Your task to perform on an android device: set the timer Image 0: 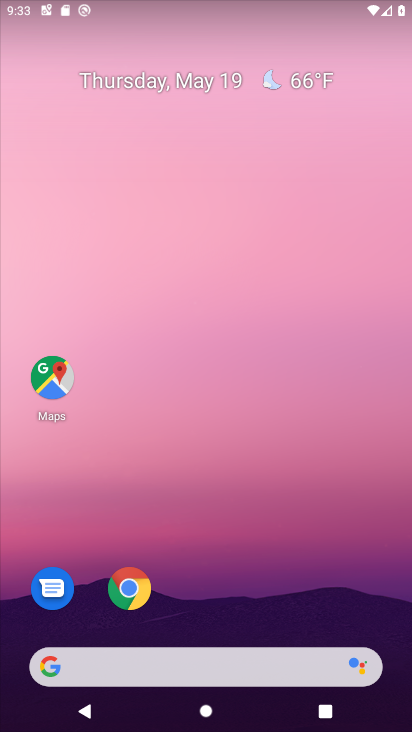
Step 0: drag from (371, 548) to (365, 167)
Your task to perform on an android device: set the timer Image 1: 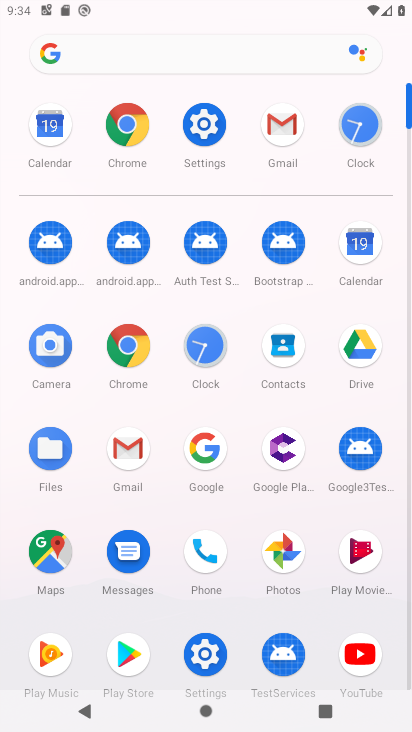
Step 1: click (188, 345)
Your task to perform on an android device: set the timer Image 2: 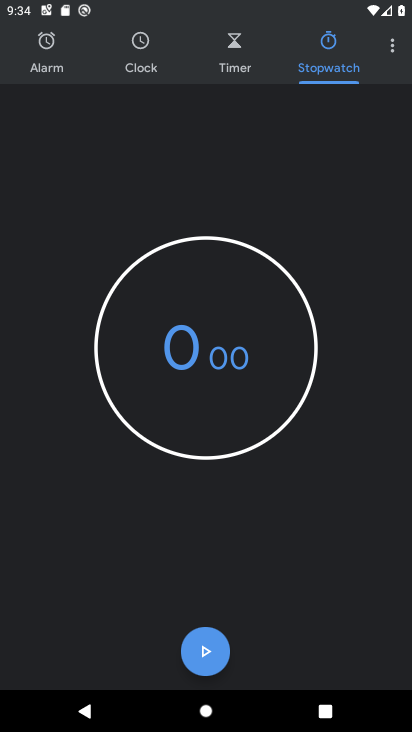
Step 2: click (49, 51)
Your task to perform on an android device: set the timer Image 3: 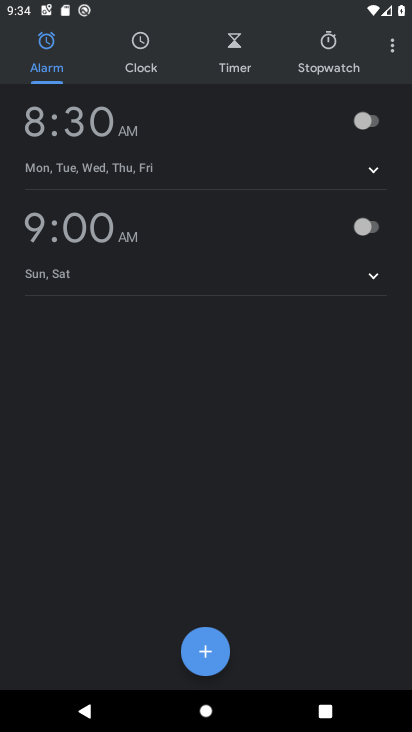
Step 3: click (197, 663)
Your task to perform on an android device: set the timer Image 4: 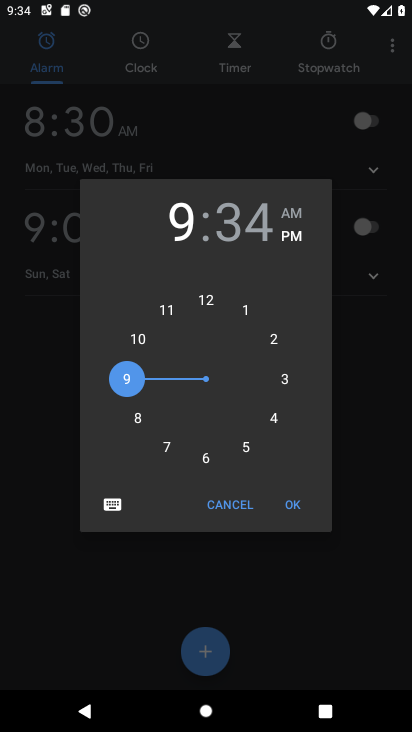
Step 4: click (291, 513)
Your task to perform on an android device: set the timer Image 5: 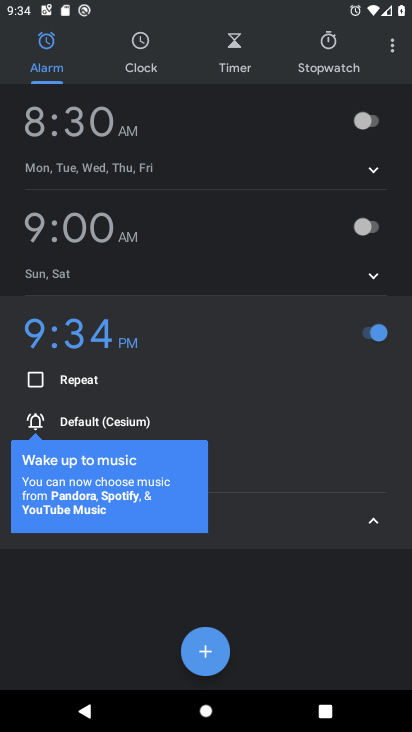
Step 5: task complete